Your task to perform on an android device: turn vacation reply on in the gmail app Image 0: 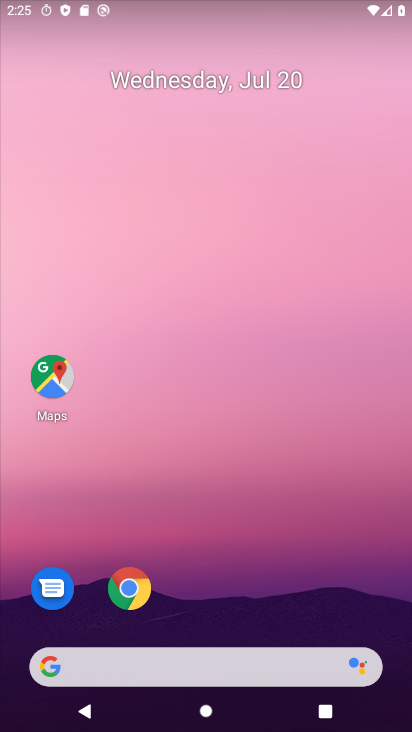
Step 0: click (251, 205)
Your task to perform on an android device: turn vacation reply on in the gmail app Image 1: 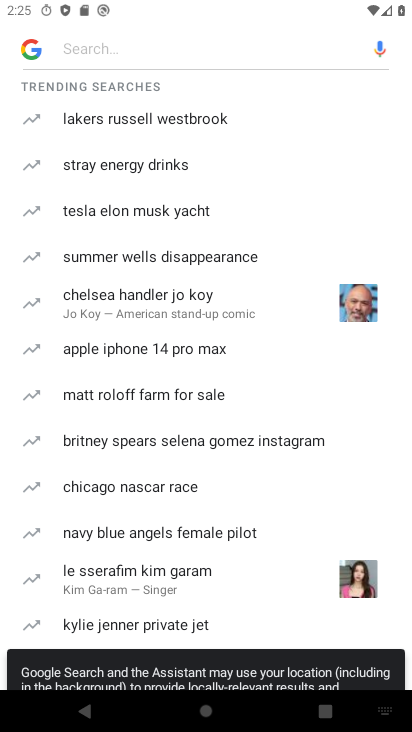
Step 1: press home button
Your task to perform on an android device: turn vacation reply on in the gmail app Image 2: 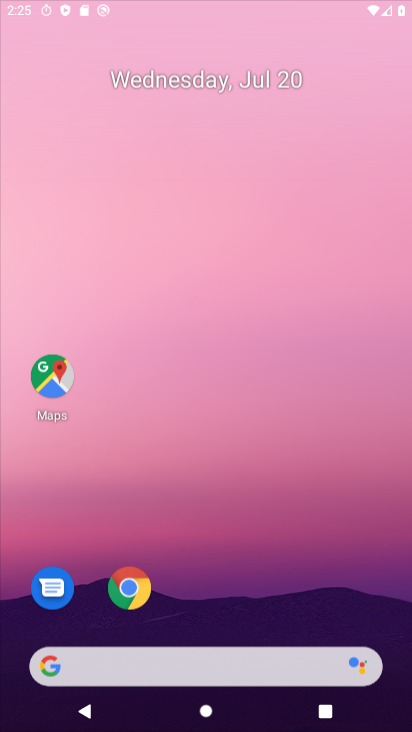
Step 2: drag from (62, 612) to (191, 238)
Your task to perform on an android device: turn vacation reply on in the gmail app Image 3: 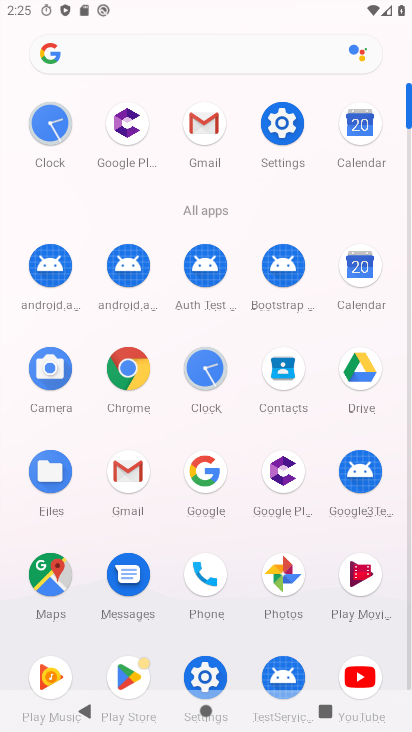
Step 3: click (120, 467)
Your task to perform on an android device: turn vacation reply on in the gmail app Image 4: 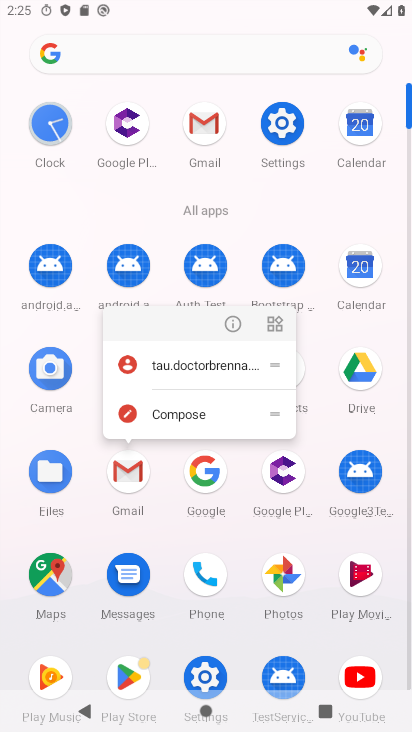
Step 4: click (229, 320)
Your task to perform on an android device: turn vacation reply on in the gmail app Image 5: 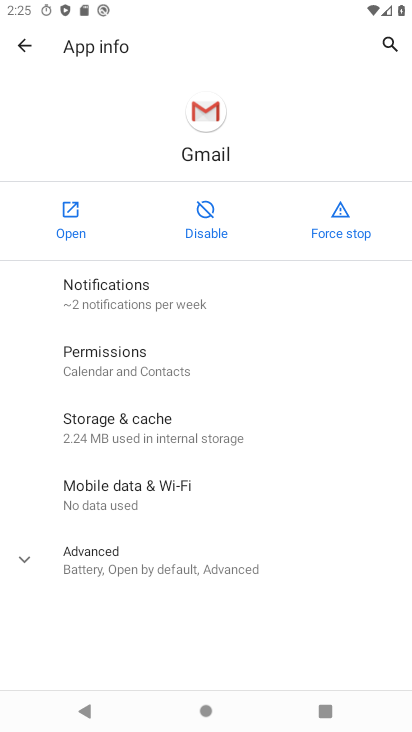
Step 5: click (71, 233)
Your task to perform on an android device: turn vacation reply on in the gmail app Image 6: 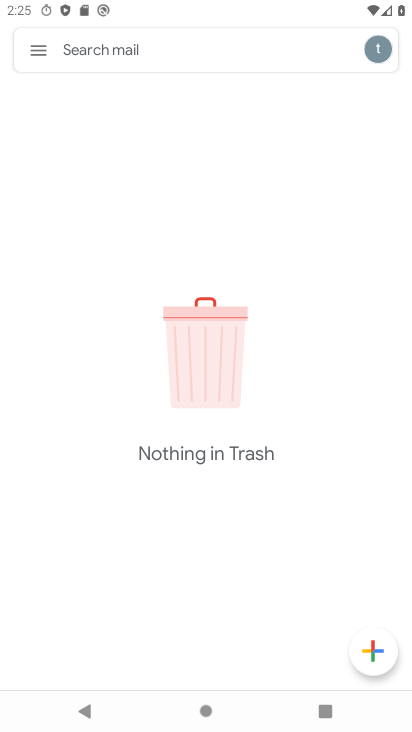
Step 6: click (32, 42)
Your task to perform on an android device: turn vacation reply on in the gmail app Image 7: 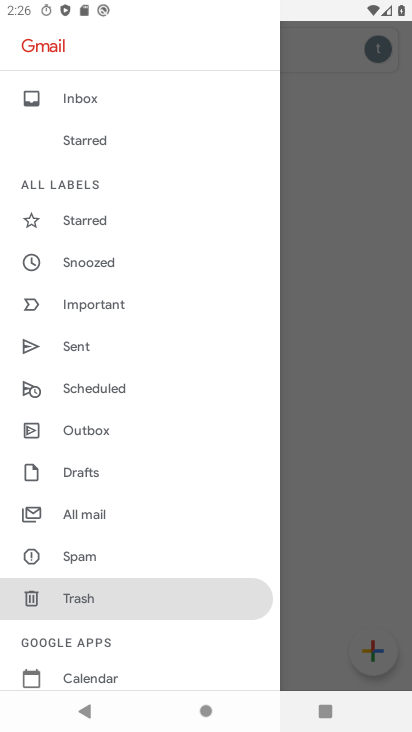
Step 7: drag from (114, 628) to (142, 149)
Your task to perform on an android device: turn vacation reply on in the gmail app Image 8: 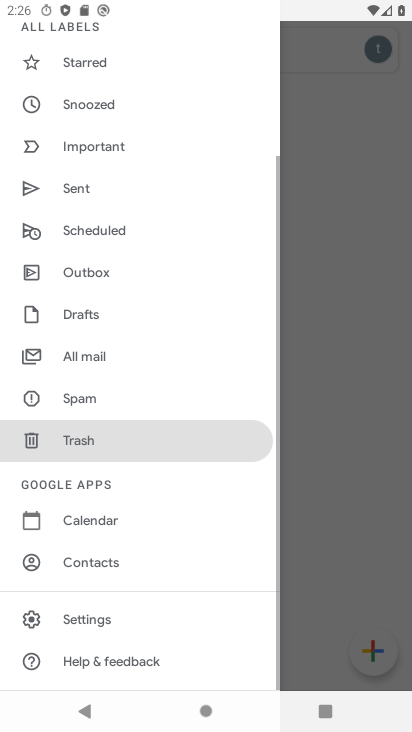
Step 8: click (114, 617)
Your task to perform on an android device: turn vacation reply on in the gmail app Image 9: 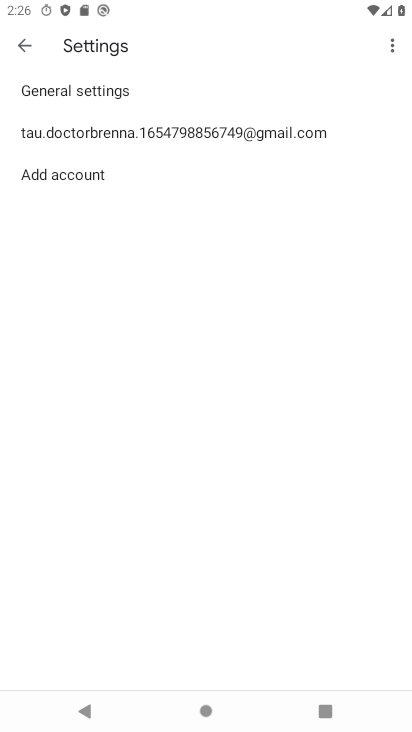
Step 9: click (175, 135)
Your task to perform on an android device: turn vacation reply on in the gmail app Image 10: 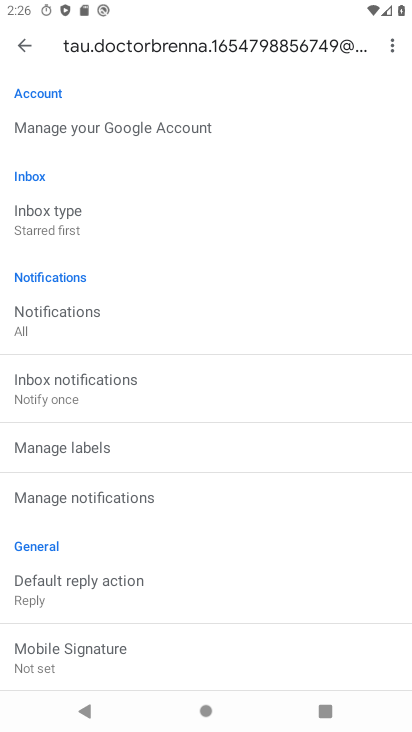
Step 10: drag from (97, 604) to (159, 141)
Your task to perform on an android device: turn vacation reply on in the gmail app Image 11: 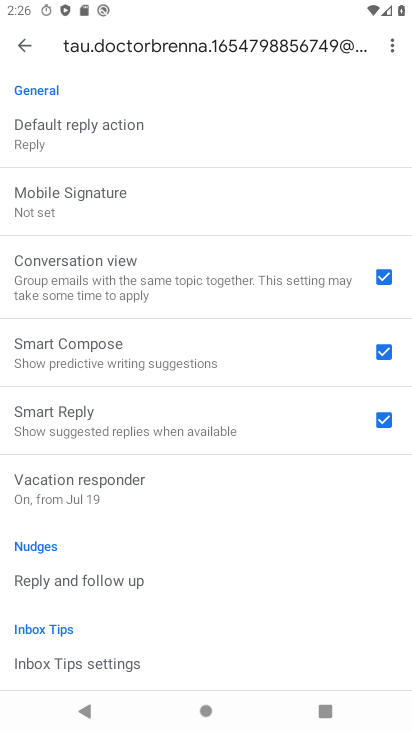
Step 11: click (107, 483)
Your task to perform on an android device: turn vacation reply on in the gmail app Image 12: 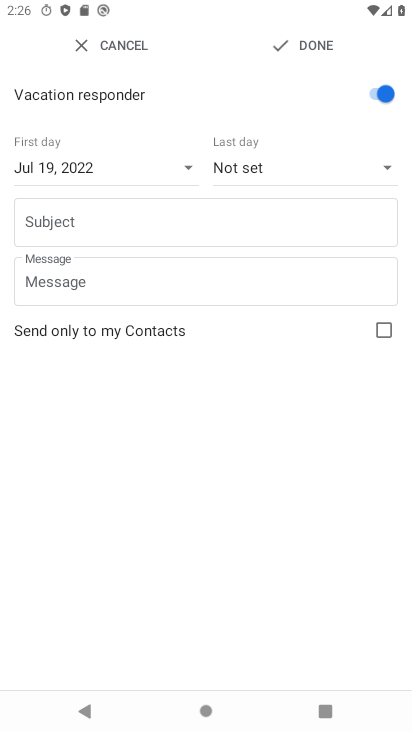
Step 12: click (299, 46)
Your task to perform on an android device: turn vacation reply on in the gmail app Image 13: 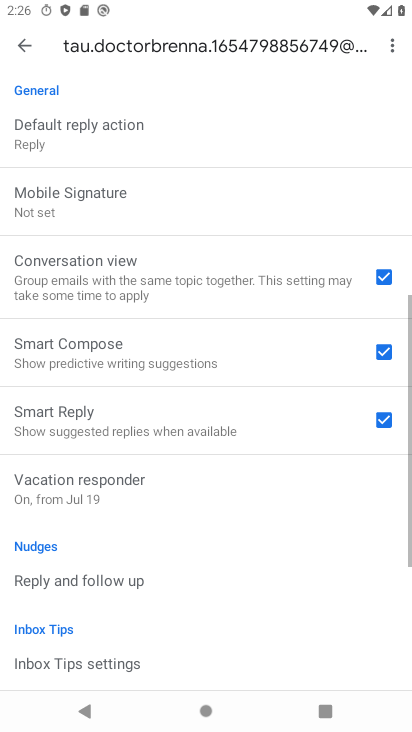
Step 13: task complete